Your task to perform on an android device: What's the weather going to be this weekend? Image 0: 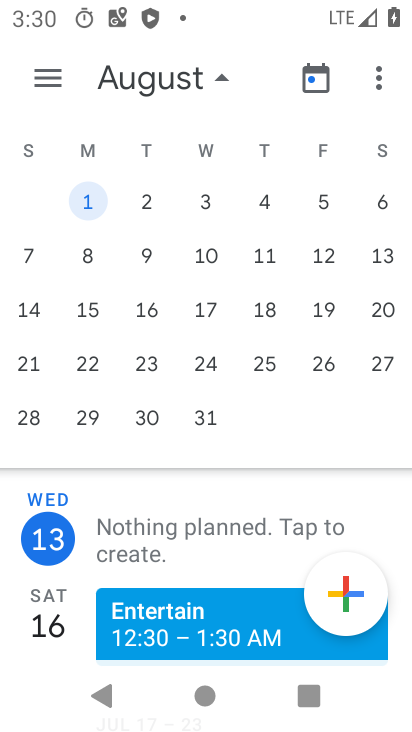
Step 0: press home button
Your task to perform on an android device: What's the weather going to be this weekend? Image 1: 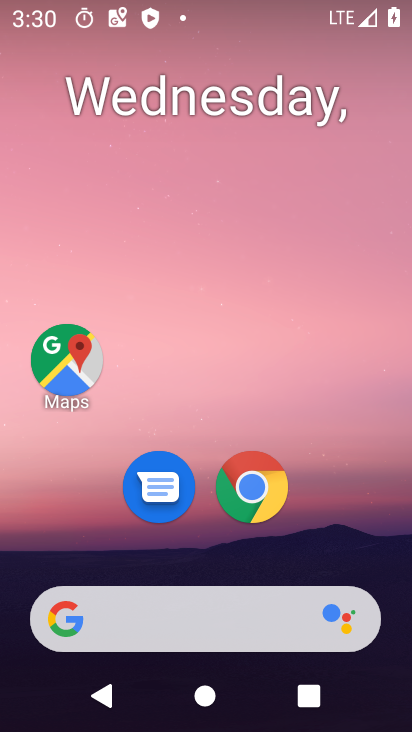
Step 1: drag from (253, 576) to (312, 12)
Your task to perform on an android device: What's the weather going to be this weekend? Image 2: 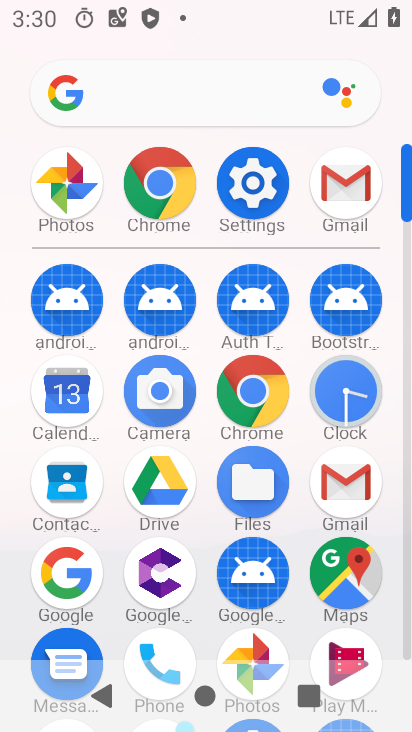
Step 2: click (80, 578)
Your task to perform on an android device: What's the weather going to be this weekend? Image 3: 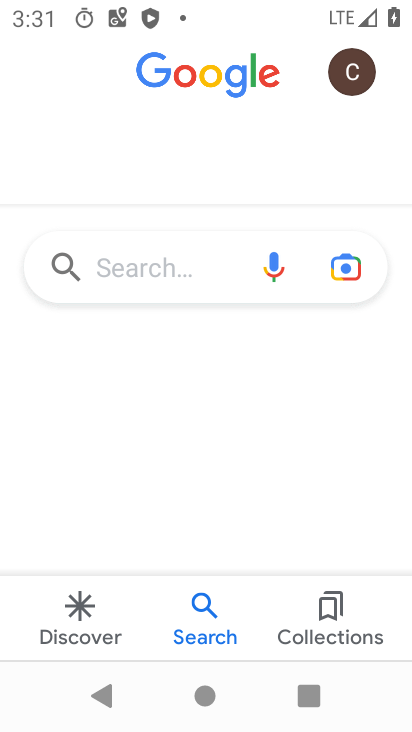
Step 3: click (162, 250)
Your task to perform on an android device: What's the weather going to be this weekend? Image 4: 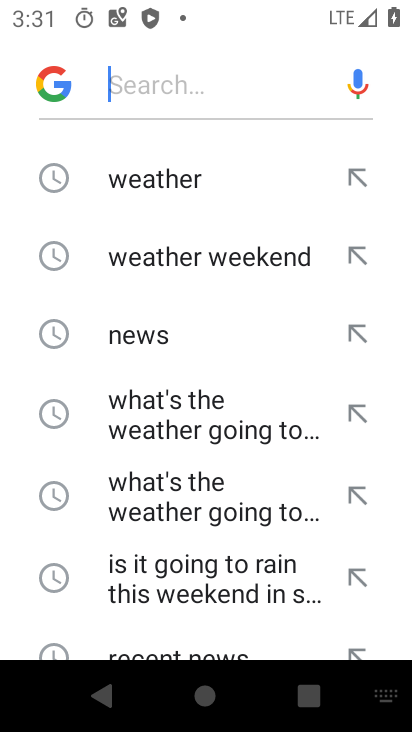
Step 4: click (197, 195)
Your task to perform on an android device: What's the weather going to be this weekend? Image 5: 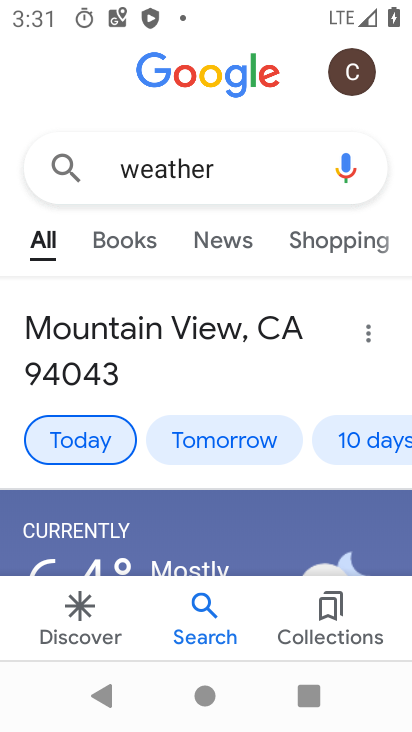
Step 5: click (271, 178)
Your task to perform on an android device: What's the weather going to be this weekend? Image 6: 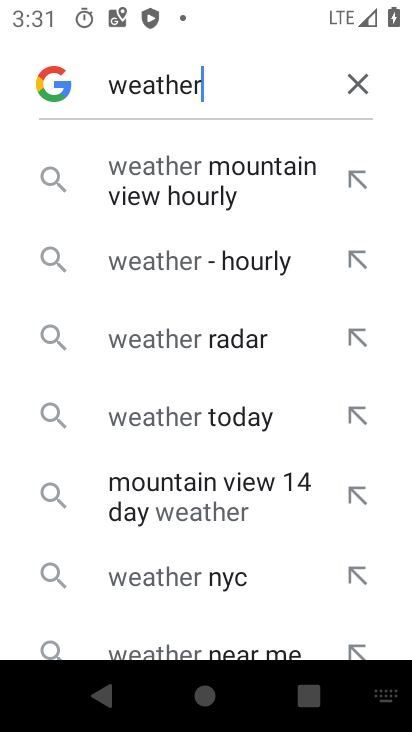
Step 6: press back button
Your task to perform on an android device: What's the weather going to be this weekend? Image 7: 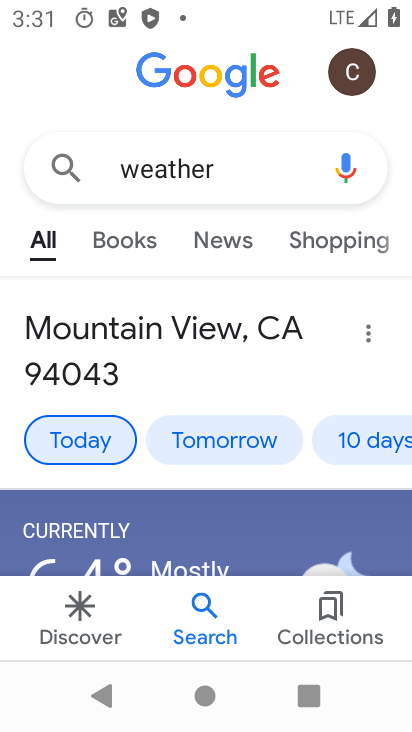
Step 7: click (365, 444)
Your task to perform on an android device: What's the weather going to be this weekend? Image 8: 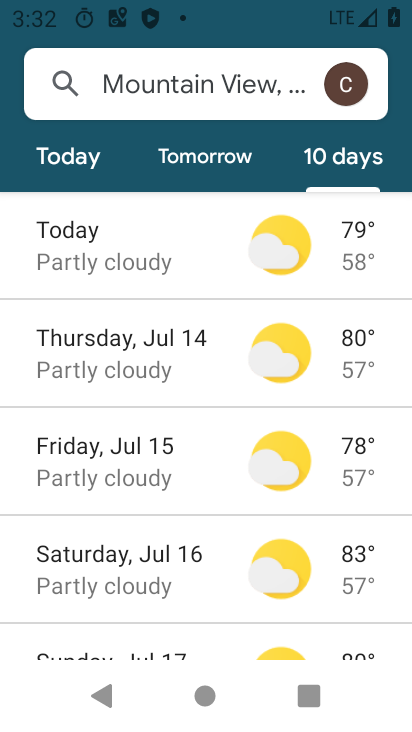
Step 8: task complete